Your task to perform on an android device: Open eBay Image 0: 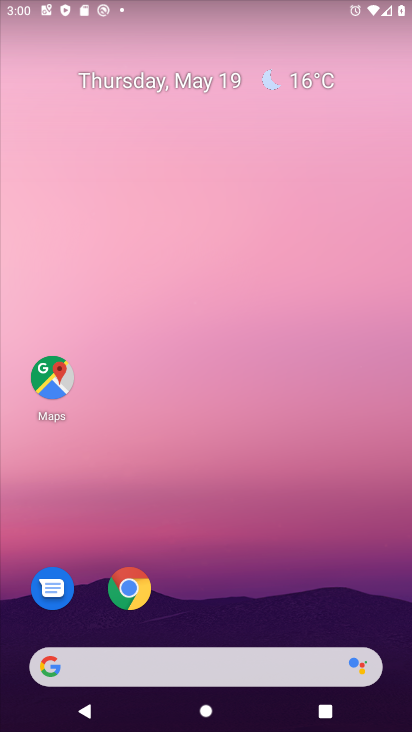
Step 0: click (136, 595)
Your task to perform on an android device: Open eBay Image 1: 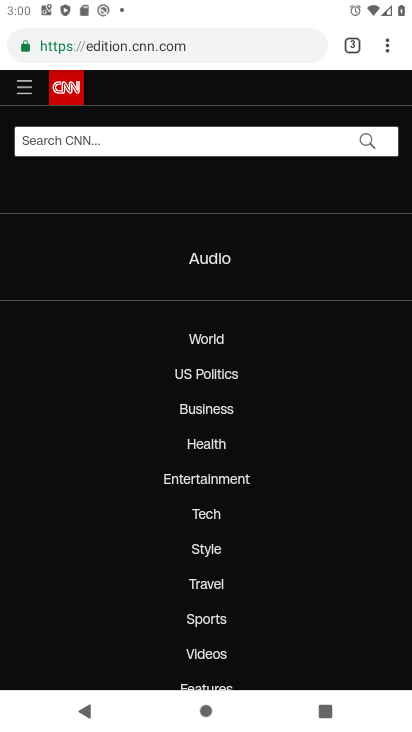
Step 1: click (221, 37)
Your task to perform on an android device: Open eBay Image 2: 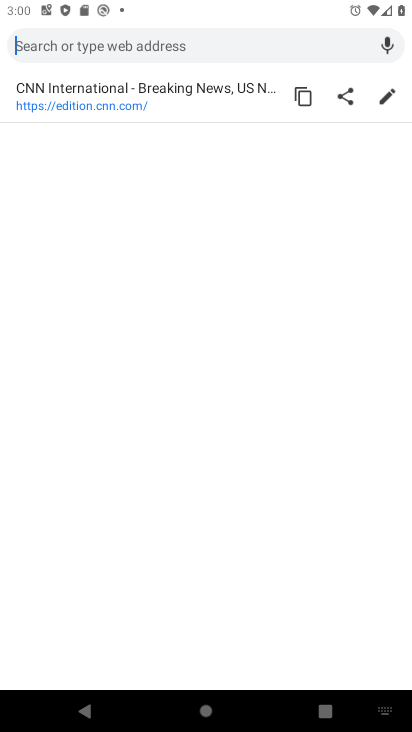
Step 2: type "ebay"
Your task to perform on an android device: Open eBay Image 3: 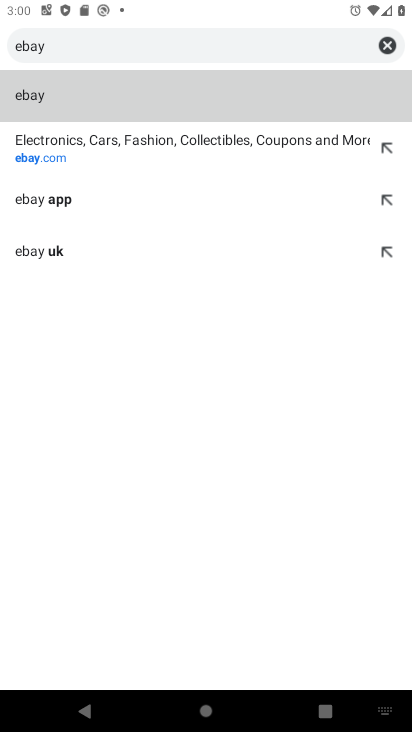
Step 3: click (49, 161)
Your task to perform on an android device: Open eBay Image 4: 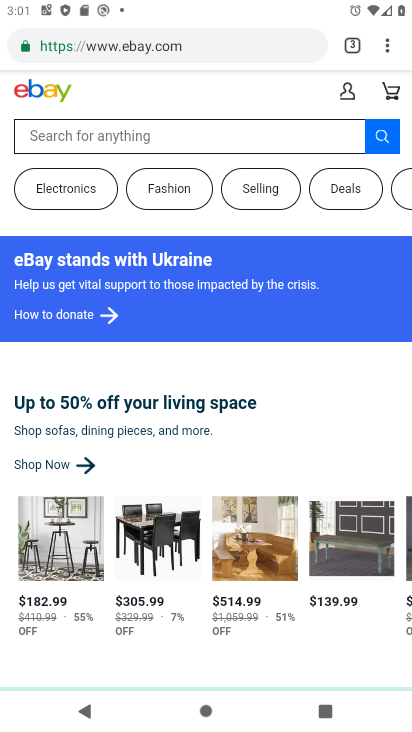
Step 4: task complete